Your task to perform on an android device: turn on priority inbox in the gmail app Image 0: 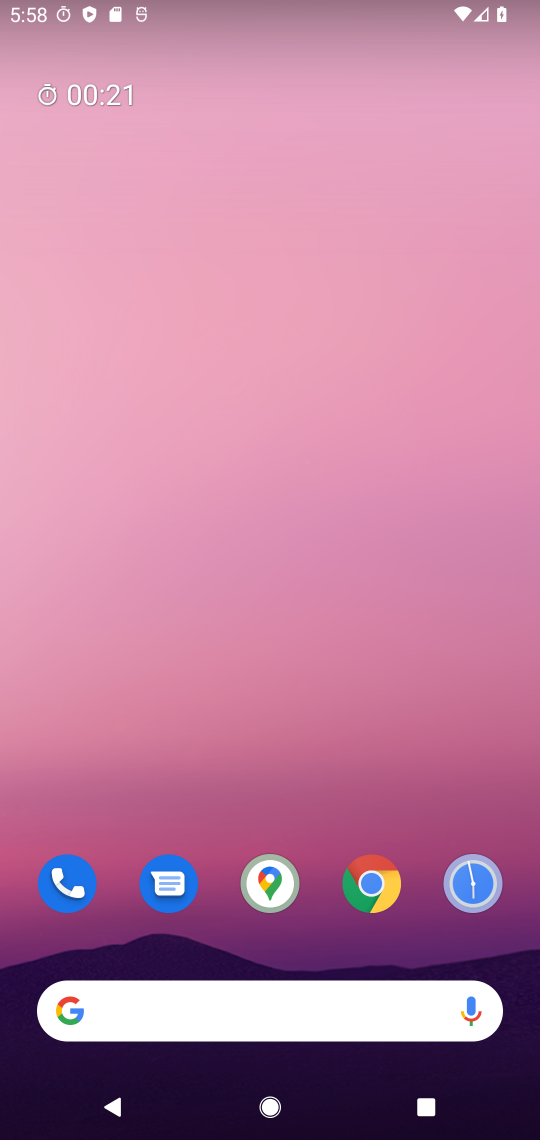
Step 0: drag from (272, 736) to (272, 18)
Your task to perform on an android device: turn on priority inbox in the gmail app Image 1: 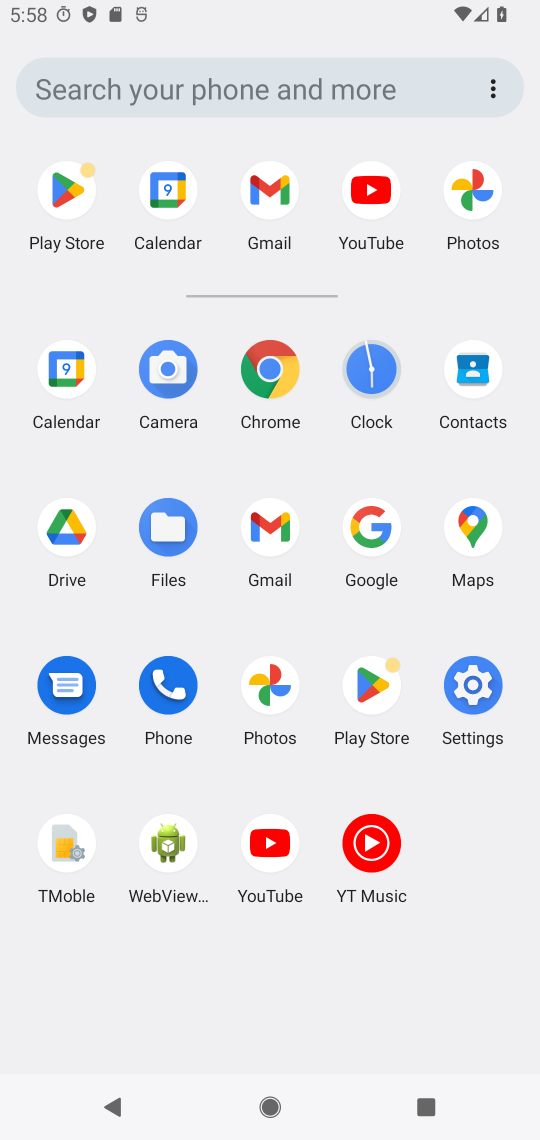
Step 1: click (279, 199)
Your task to perform on an android device: turn on priority inbox in the gmail app Image 2: 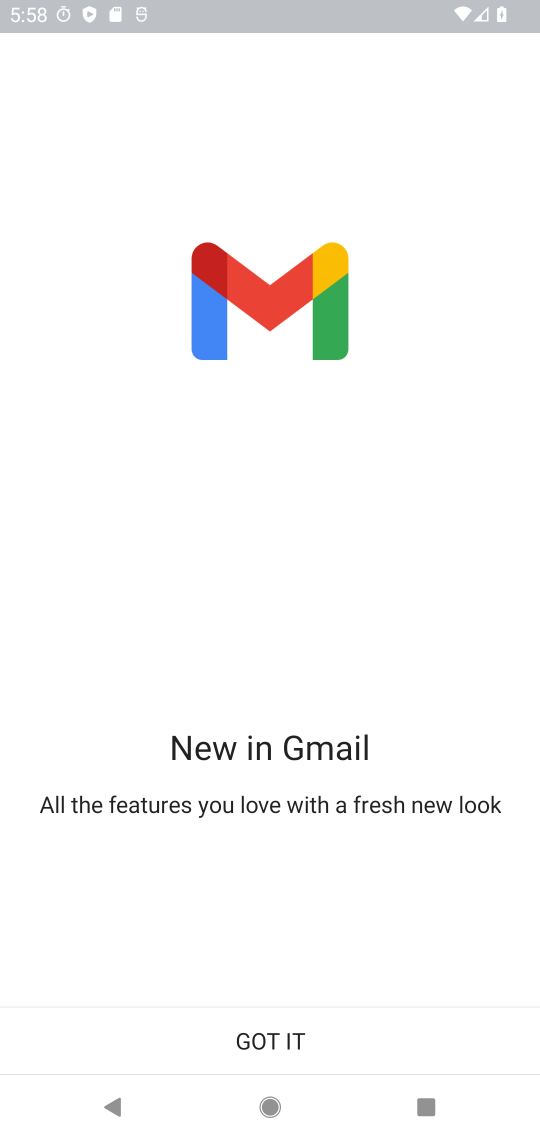
Step 2: click (310, 1047)
Your task to perform on an android device: turn on priority inbox in the gmail app Image 3: 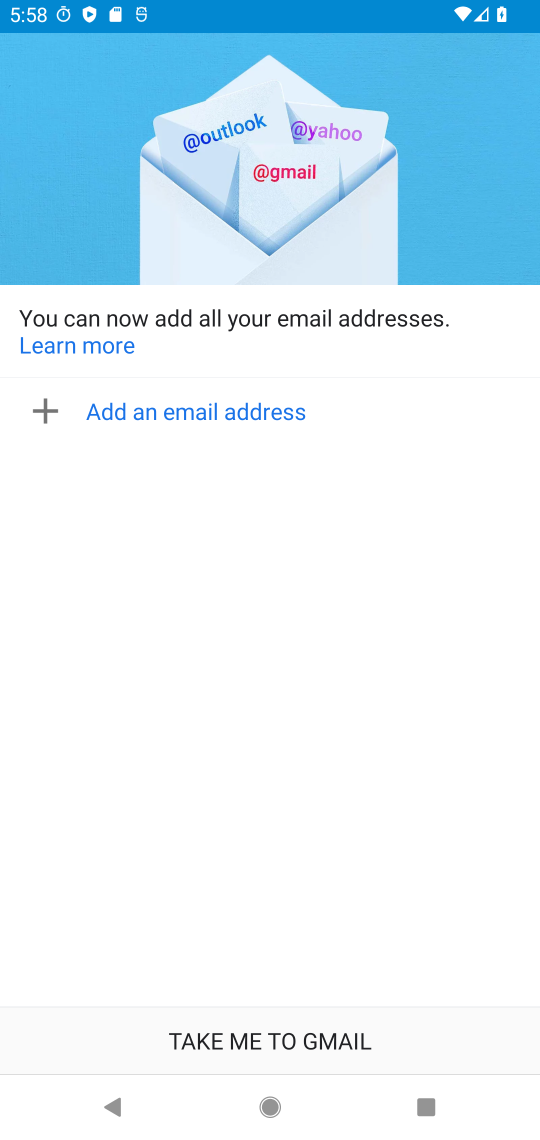
Step 3: click (310, 1047)
Your task to perform on an android device: turn on priority inbox in the gmail app Image 4: 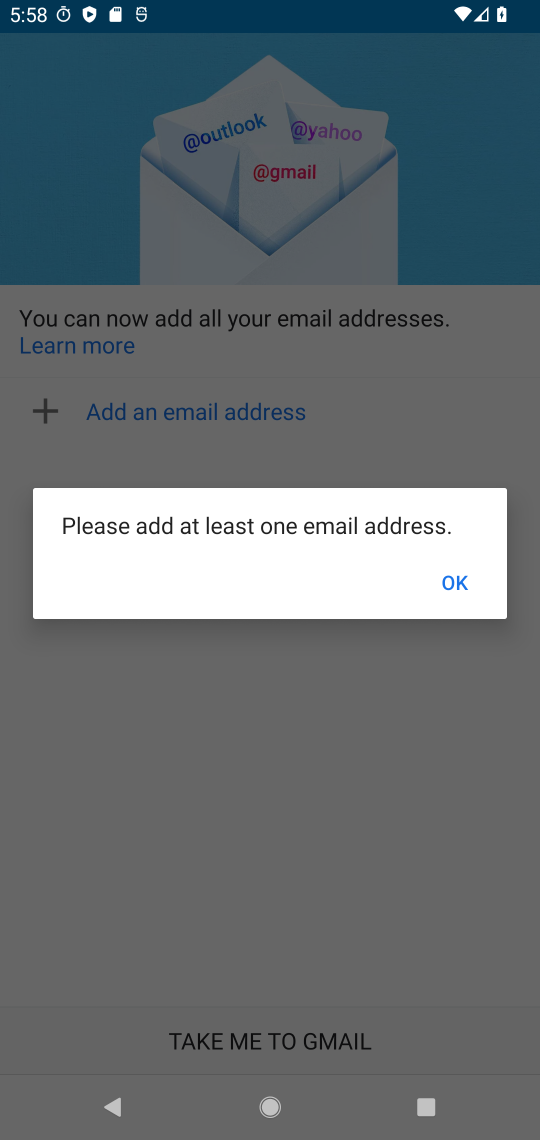
Step 4: click (455, 581)
Your task to perform on an android device: turn on priority inbox in the gmail app Image 5: 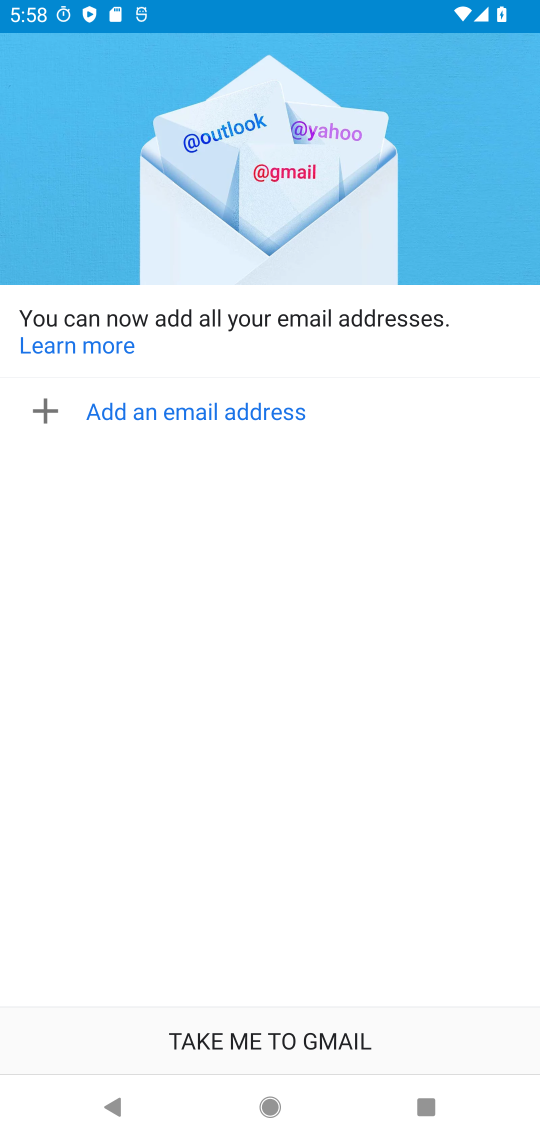
Step 5: click (345, 1023)
Your task to perform on an android device: turn on priority inbox in the gmail app Image 6: 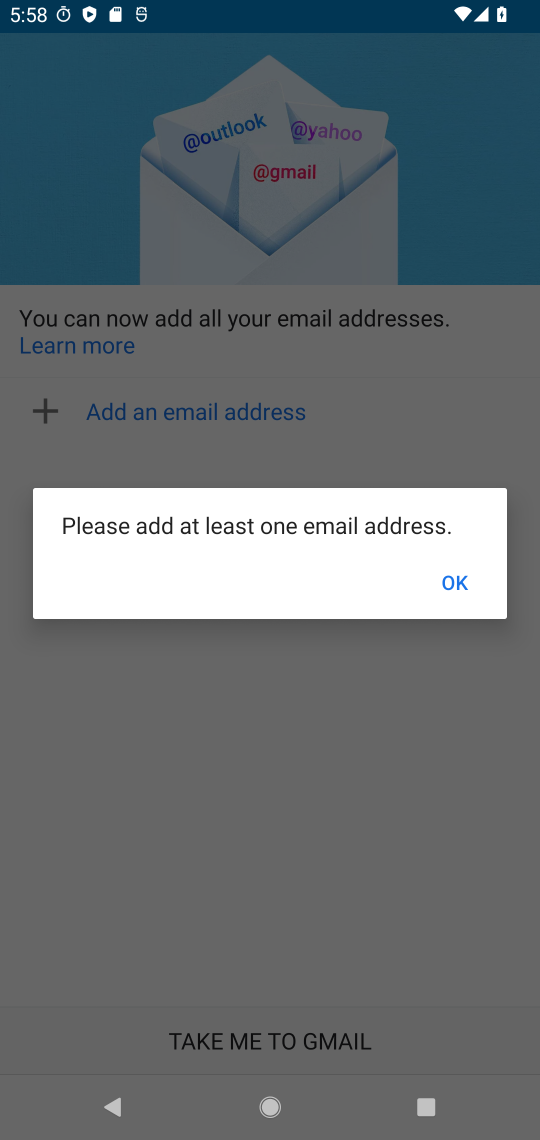
Step 6: task complete